Your task to perform on an android device: visit the assistant section in the google photos Image 0: 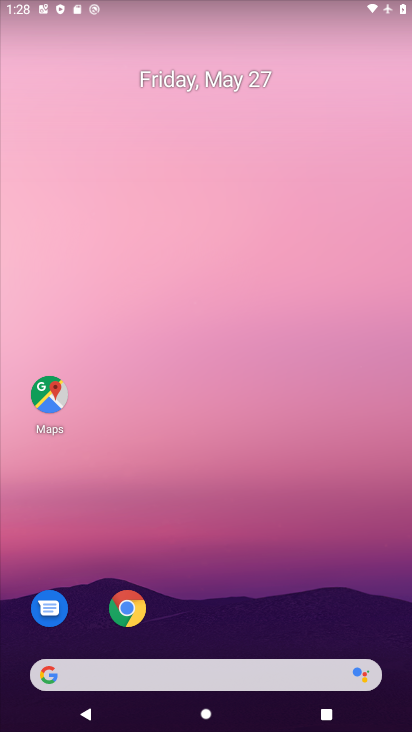
Step 0: drag from (151, 669) to (274, 211)
Your task to perform on an android device: visit the assistant section in the google photos Image 1: 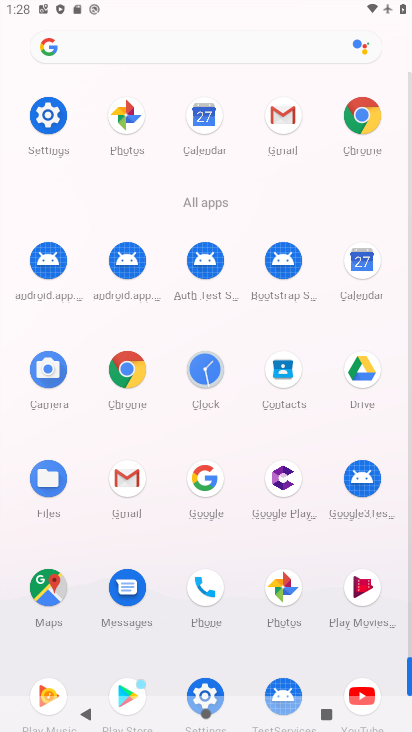
Step 1: click (283, 585)
Your task to perform on an android device: visit the assistant section in the google photos Image 2: 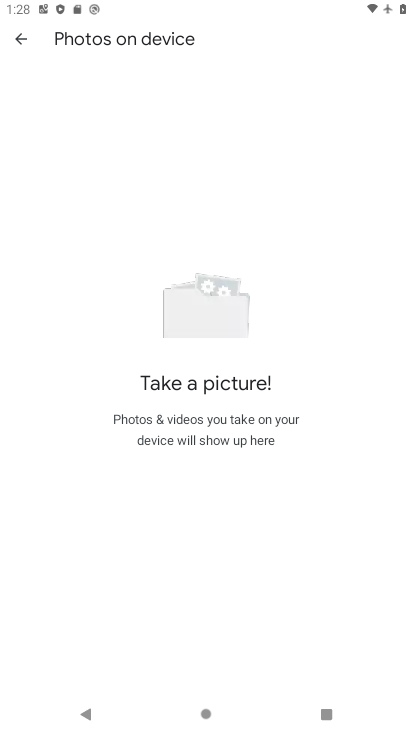
Step 2: click (14, 37)
Your task to perform on an android device: visit the assistant section in the google photos Image 3: 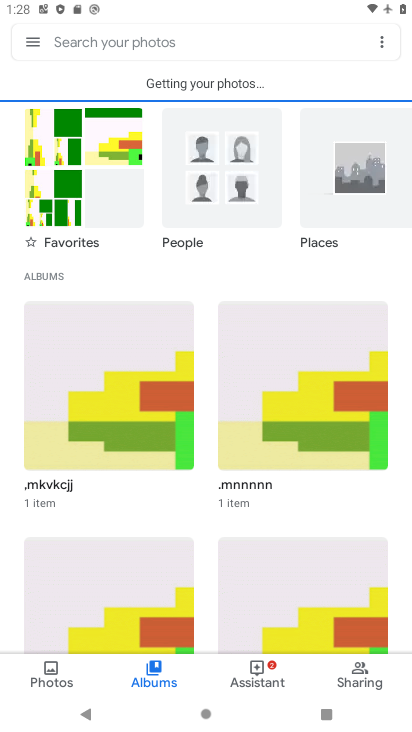
Step 3: click (246, 671)
Your task to perform on an android device: visit the assistant section in the google photos Image 4: 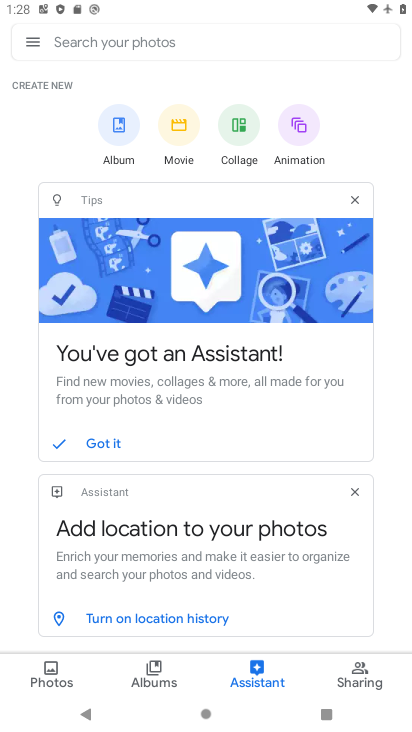
Step 4: task complete